Your task to perform on an android device: What's the weather going to be tomorrow? Image 0: 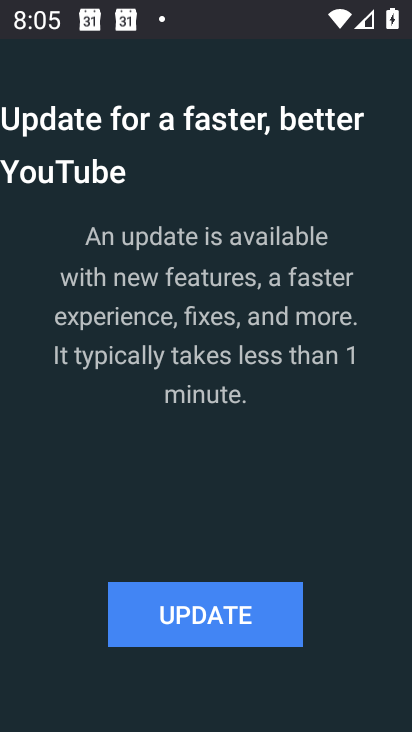
Step 0: press home button
Your task to perform on an android device: What's the weather going to be tomorrow? Image 1: 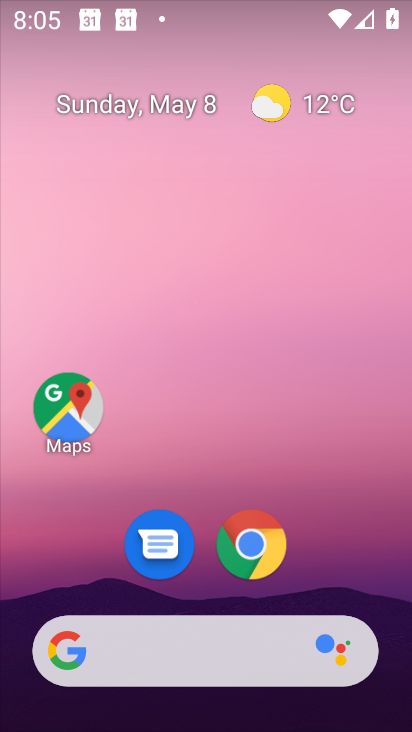
Step 1: click (340, 97)
Your task to perform on an android device: What's the weather going to be tomorrow? Image 2: 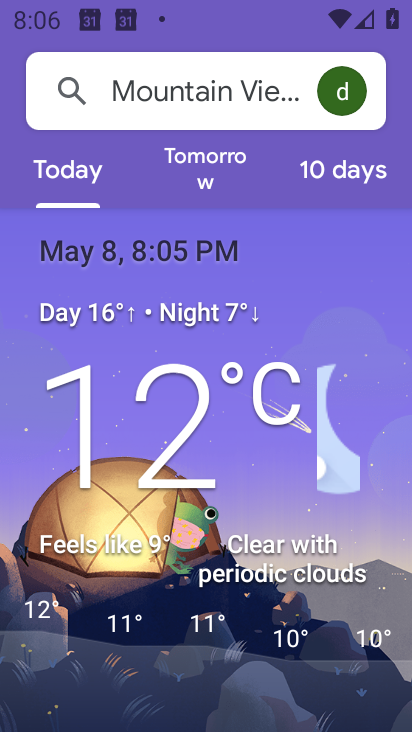
Step 2: click (206, 161)
Your task to perform on an android device: What's the weather going to be tomorrow? Image 3: 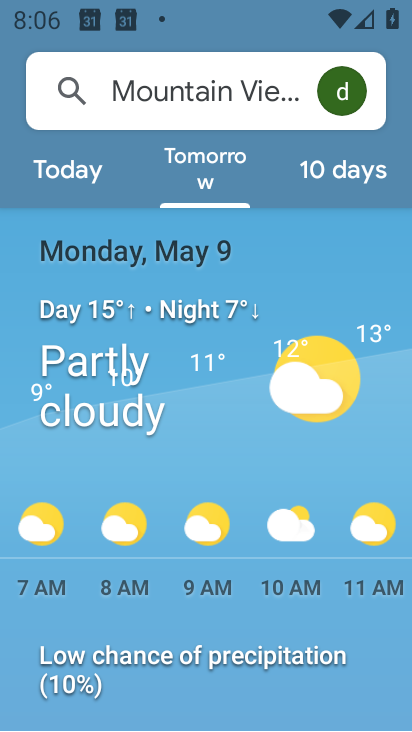
Step 3: task complete